Your task to perform on an android device: Open Maps and search for coffee Image 0: 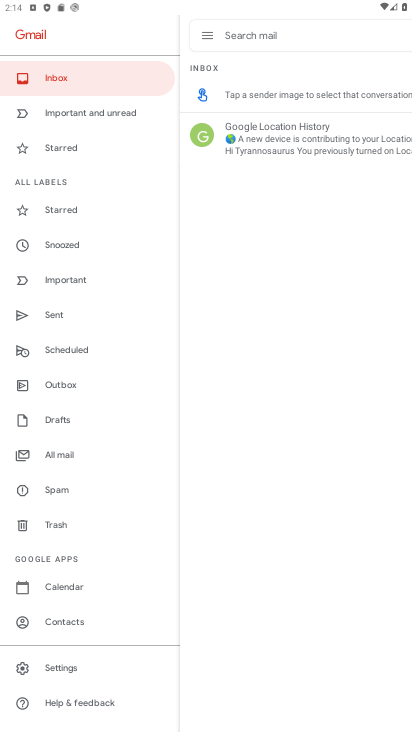
Step 0: press home button
Your task to perform on an android device: Open Maps and search for coffee Image 1: 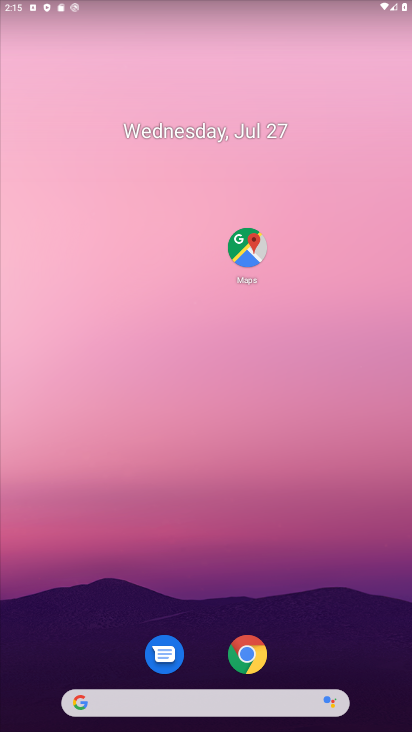
Step 1: click (244, 247)
Your task to perform on an android device: Open Maps and search for coffee Image 2: 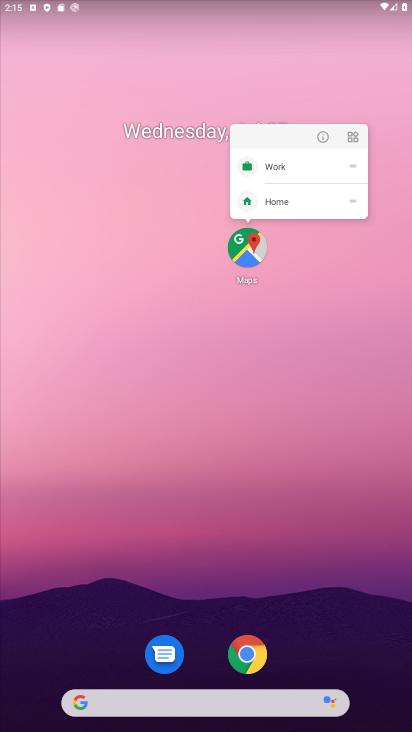
Step 2: click (244, 247)
Your task to perform on an android device: Open Maps and search for coffee Image 3: 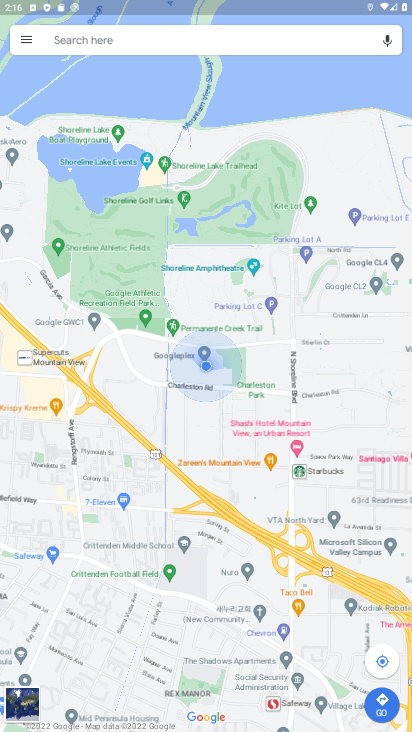
Step 3: click (272, 40)
Your task to perform on an android device: Open Maps and search for coffee Image 4: 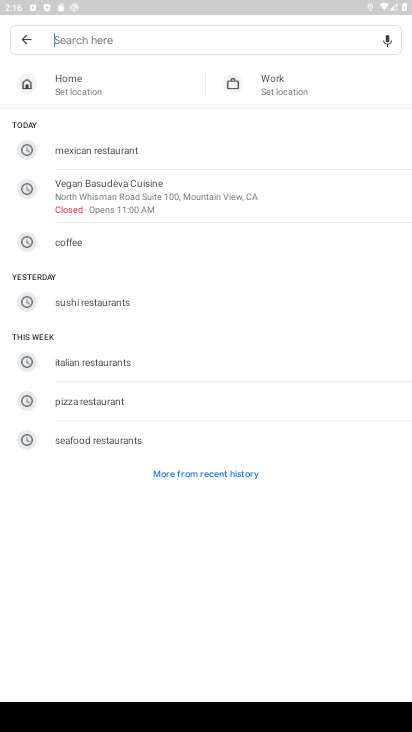
Step 4: click (47, 244)
Your task to perform on an android device: Open Maps and search for coffee Image 5: 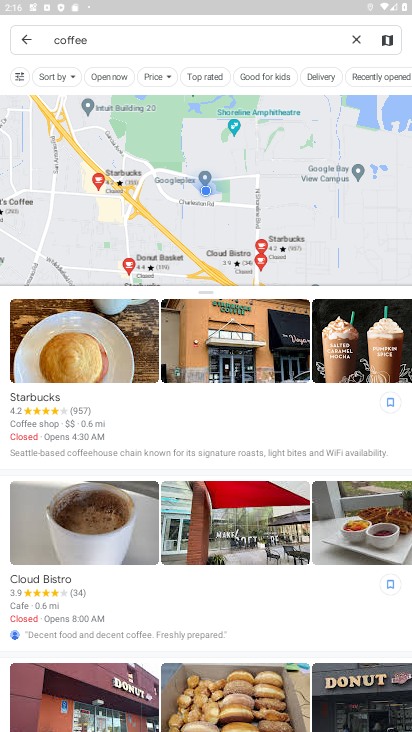
Step 5: task complete